Your task to perform on an android device: Open the calendar app, open the side menu, and click the "Day" option Image 0: 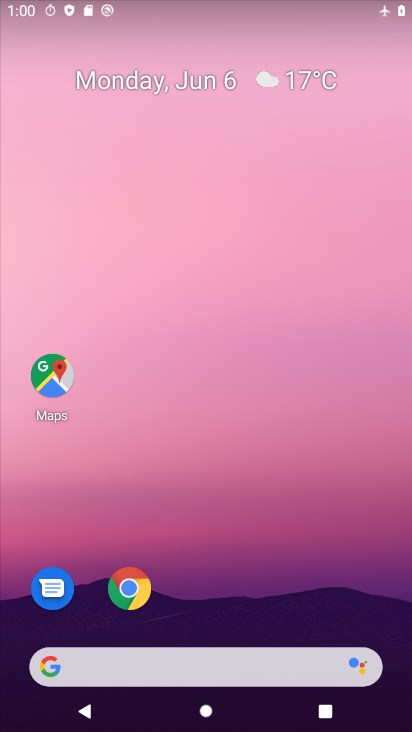
Step 0: drag from (233, 598) to (253, 84)
Your task to perform on an android device: Open the calendar app, open the side menu, and click the "Day" option Image 1: 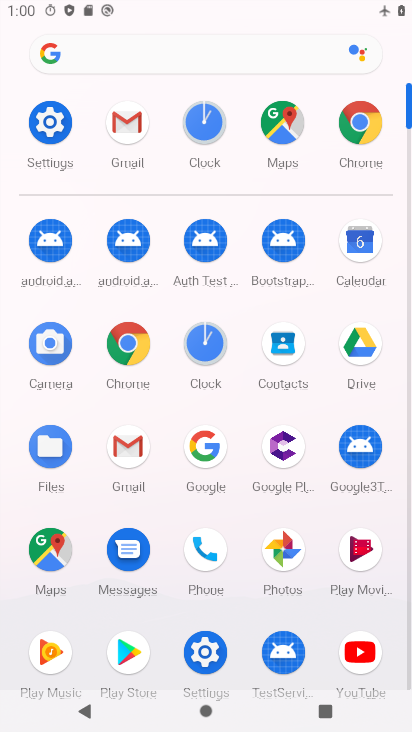
Step 1: click (367, 239)
Your task to perform on an android device: Open the calendar app, open the side menu, and click the "Day" option Image 2: 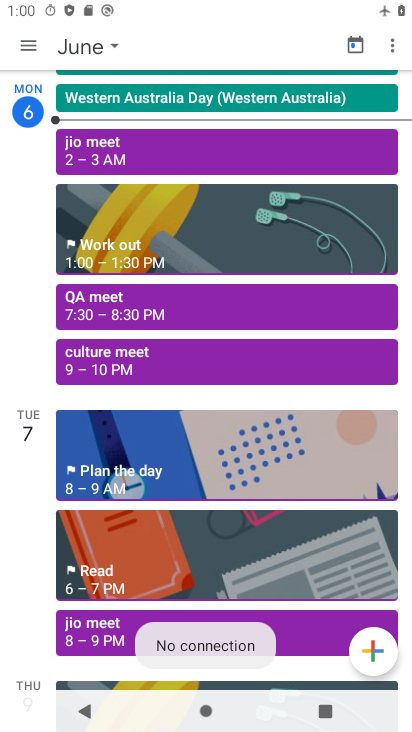
Step 2: click (33, 40)
Your task to perform on an android device: Open the calendar app, open the side menu, and click the "Day" option Image 3: 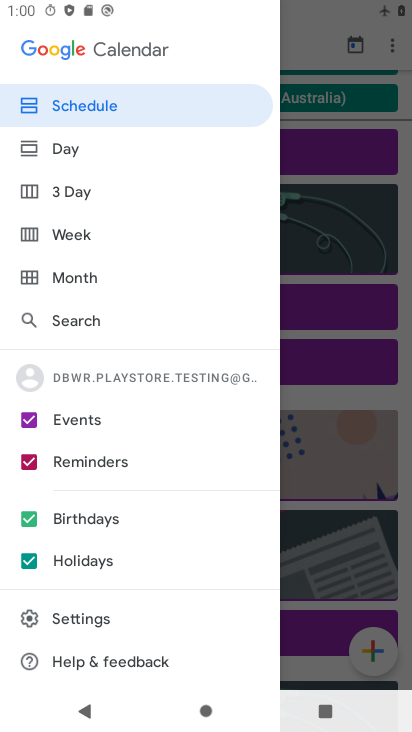
Step 3: click (80, 151)
Your task to perform on an android device: Open the calendar app, open the side menu, and click the "Day" option Image 4: 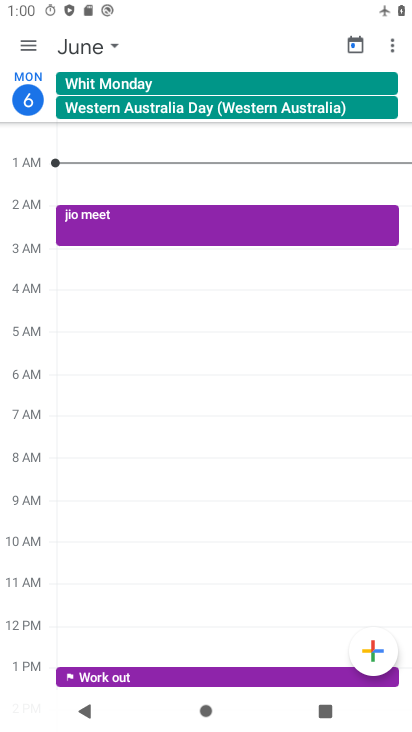
Step 4: task complete